Your task to perform on an android device: Search for Italian restaurants on Maps Image 0: 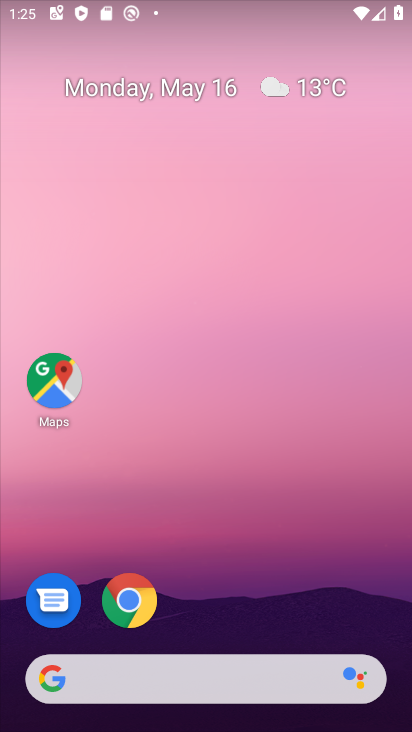
Step 0: click (59, 387)
Your task to perform on an android device: Search for Italian restaurants on Maps Image 1: 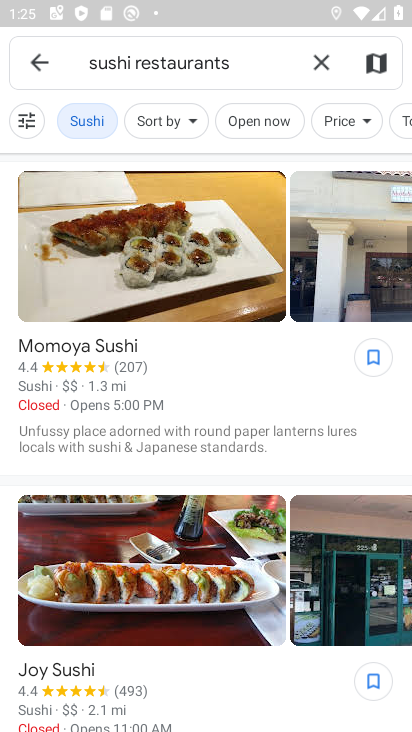
Step 1: click (306, 59)
Your task to perform on an android device: Search for Italian restaurants on Maps Image 2: 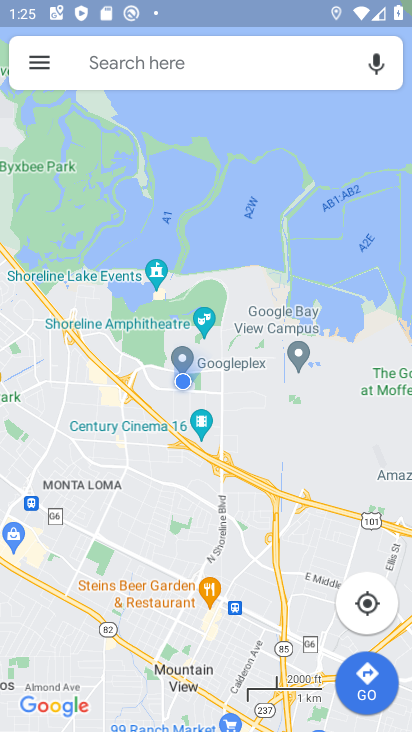
Step 2: click (152, 75)
Your task to perform on an android device: Search for Italian restaurants on Maps Image 3: 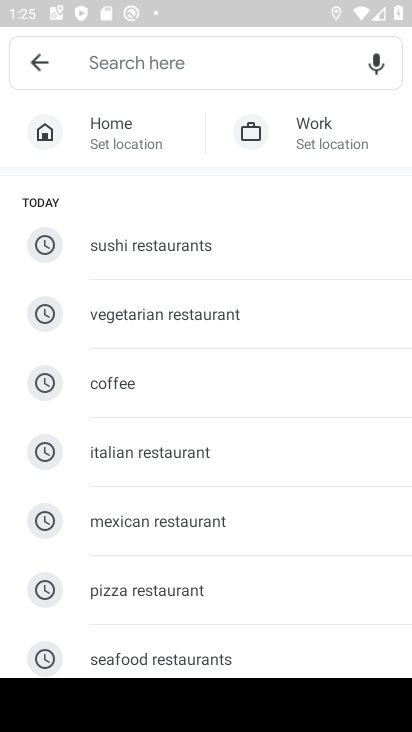
Step 3: click (120, 449)
Your task to perform on an android device: Search for Italian restaurants on Maps Image 4: 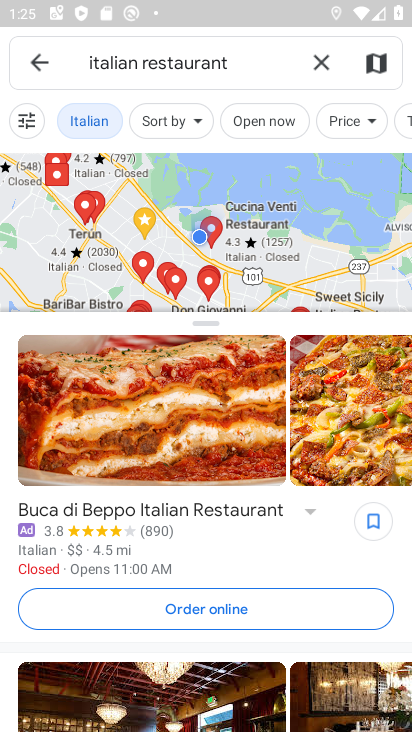
Step 4: task complete